Your task to perform on an android device: see tabs open on other devices in the chrome app Image 0: 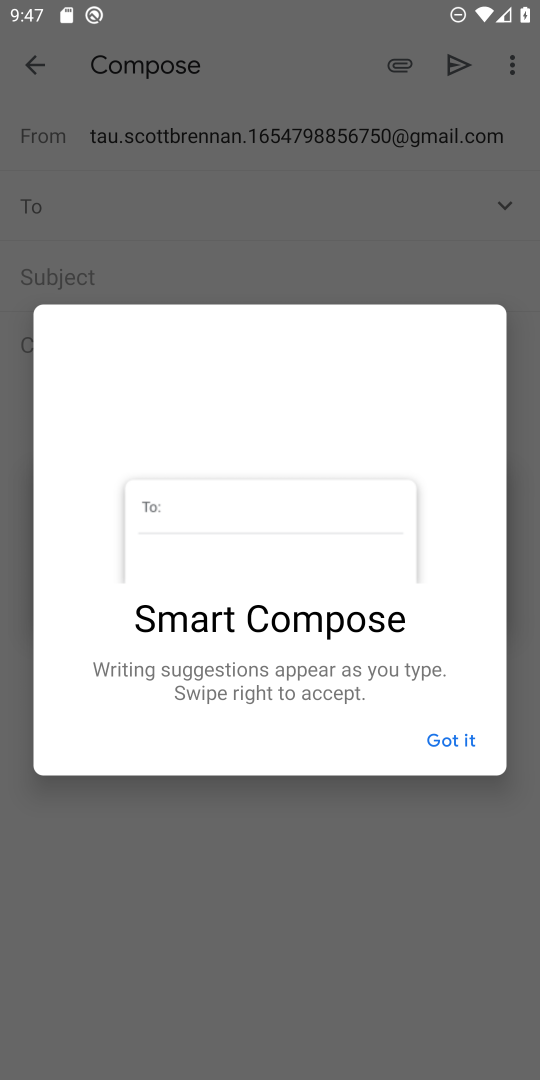
Step 0: press home button
Your task to perform on an android device: see tabs open on other devices in the chrome app Image 1: 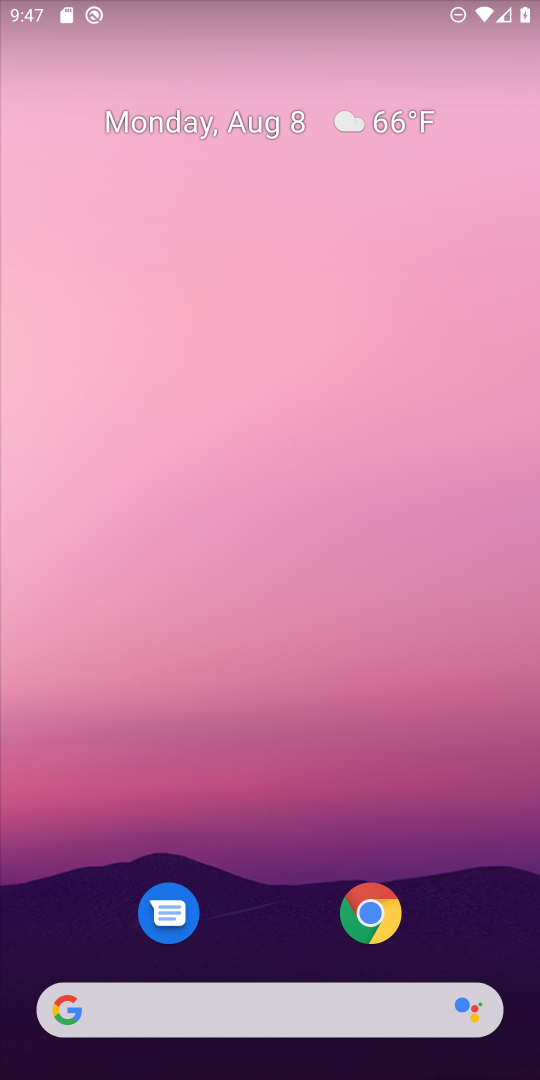
Step 1: click (372, 910)
Your task to perform on an android device: see tabs open on other devices in the chrome app Image 2: 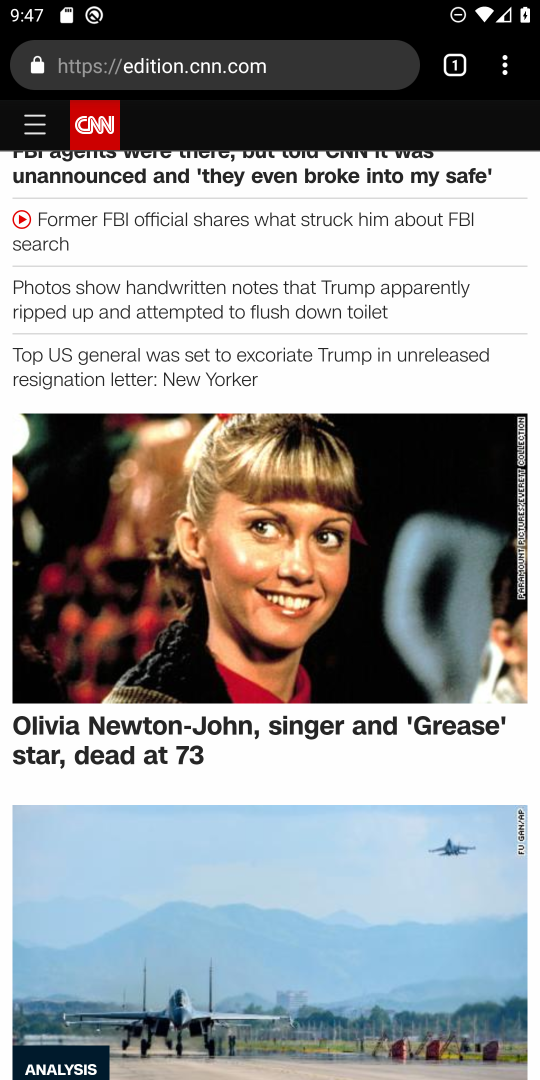
Step 2: task complete